Your task to perform on an android device: turn off picture-in-picture Image 0: 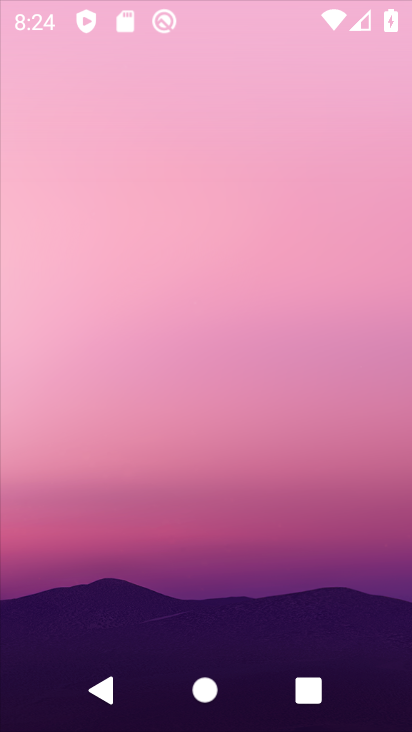
Step 0: press home button
Your task to perform on an android device: turn off picture-in-picture Image 1: 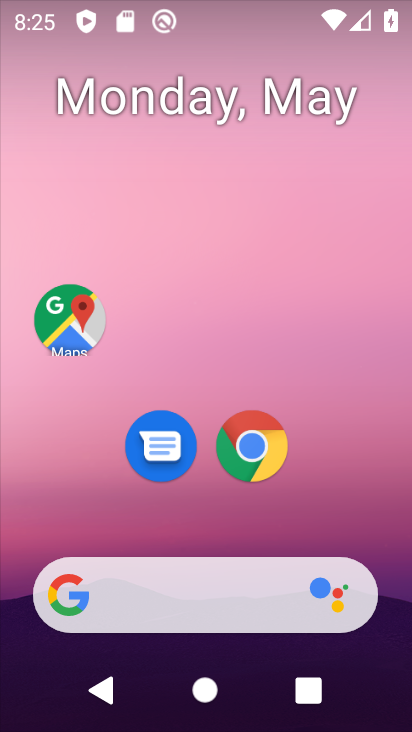
Step 1: click (257, 445)
Your task to perform on an android device: turn off picture-in-picture Image 2: 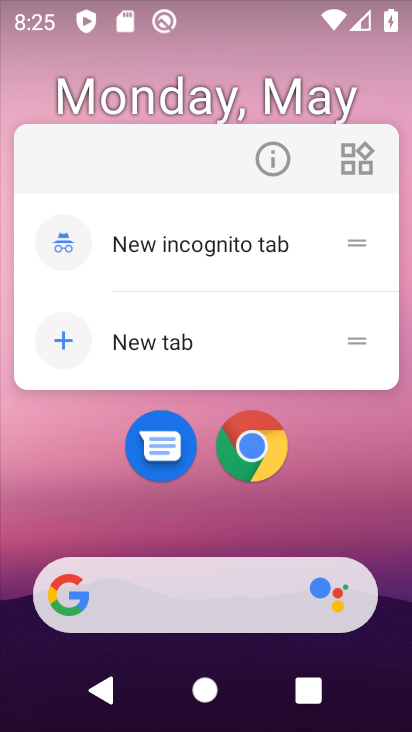
Step 2: click (276, 160)
Your task to perform on an android device: turn off picture-in-picture Image 3: 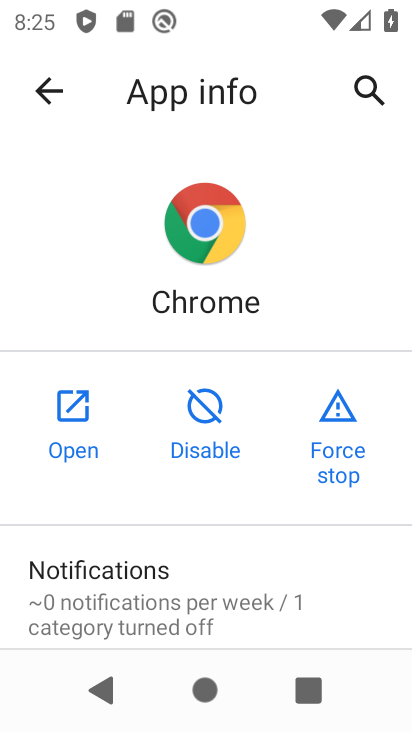
Step 3: drag from (263, 589) to (238, 139)
Your task to perform on an android device: turn off picture-in-picture Image 4: 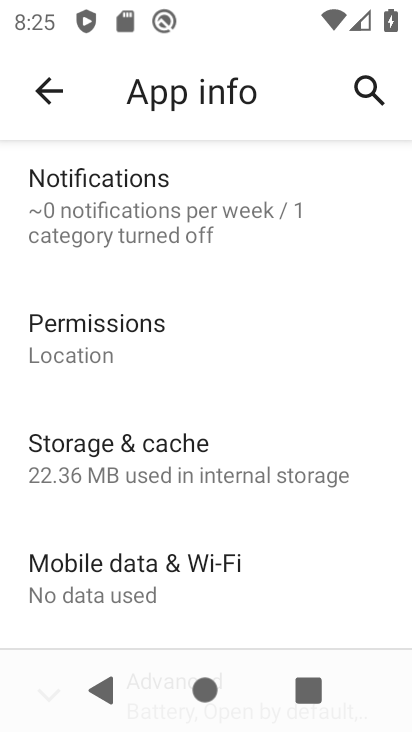
Step 4: drag from (227, 599) to (221, 194)
Your task to perform on an android device: turn off picture-in-picture Image 5: 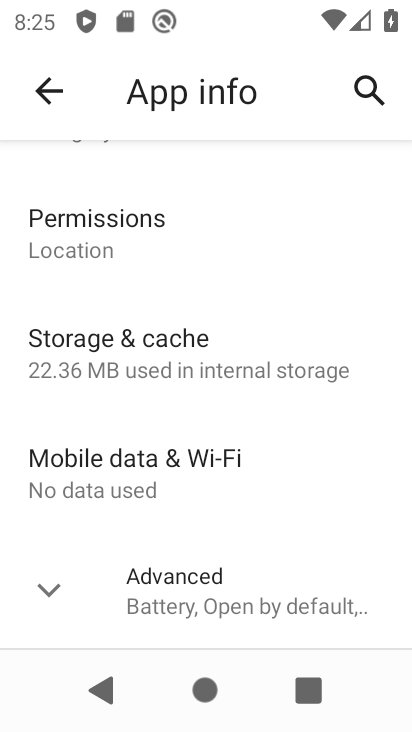
Step 5: click (48, 588)
Your task to perform on an android device: turn off picture-in-picture Image 6: 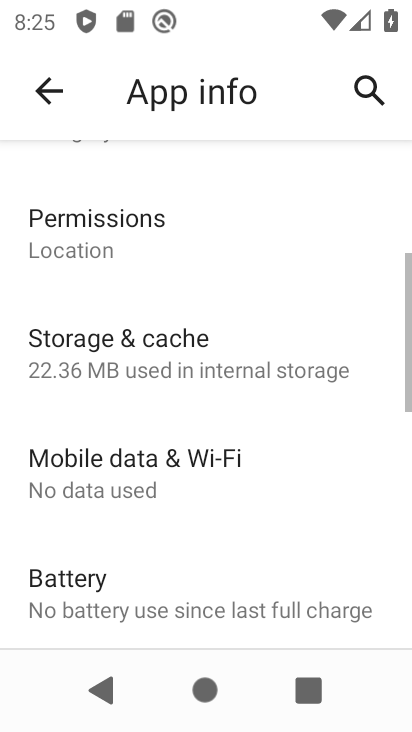
Step 6: drag from (186, 599) to (200, 75)
Your task to perform on an android device: turn off picture-in-picture Image 7: 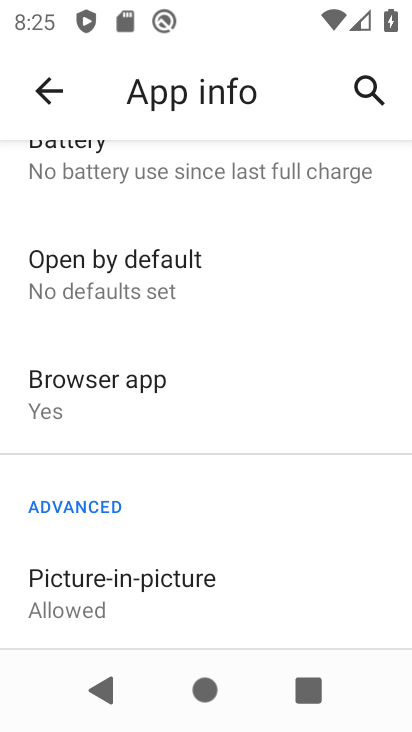
Step 7: click (160, 593)
Your task to perform on an android device: turn off picture-in-picture Image 8: 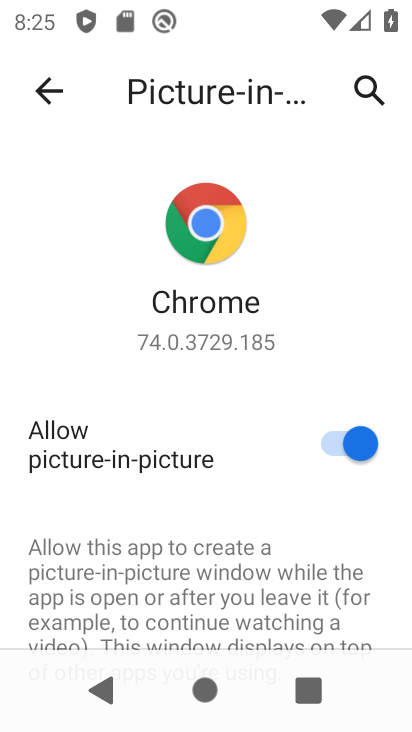
Step 8: click (340, 440)
Your task to perform on an android device: turn off picture-in-picture Image 9: 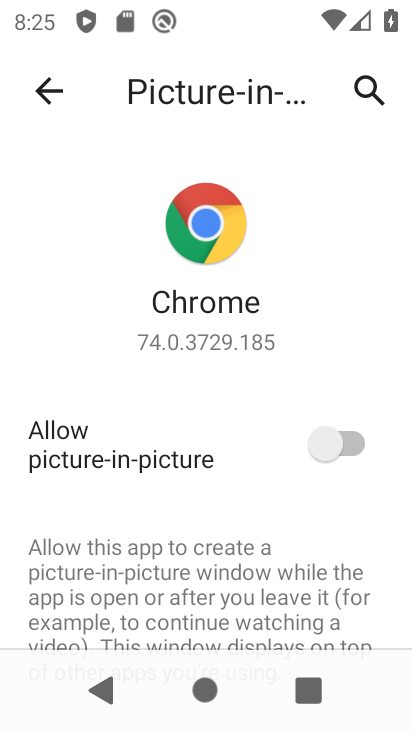
Step 9: task complete